Your task to perform on an android device: toggle translation in the chrome app Image 0: 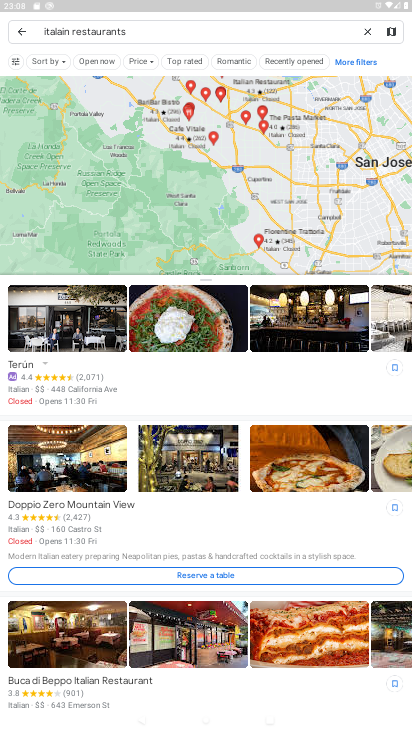
Step 0: press home button
Your task to perform on an android device: toggle translation in the chrome app Image 1: 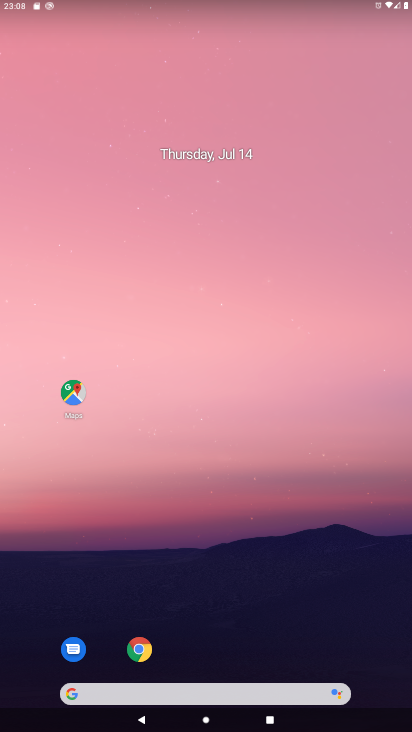
Step 1: click (144, 645)
Your task to perform on an android device: toggle translation in the chrome app Image 2: 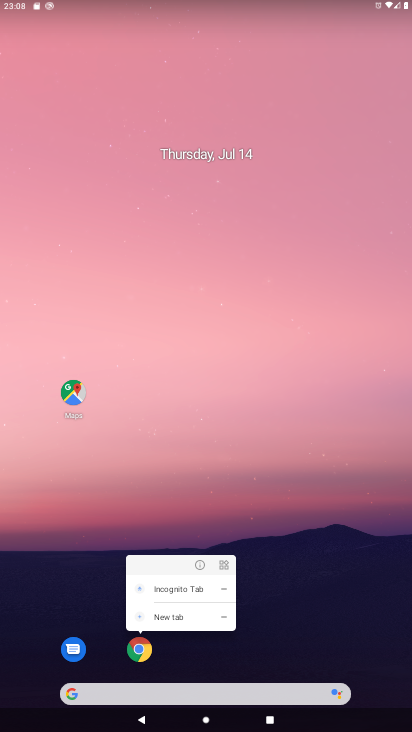
Step 2: click (142, 652)
Your task to perform on an android device: toggle translation in the chrome app Image 3: 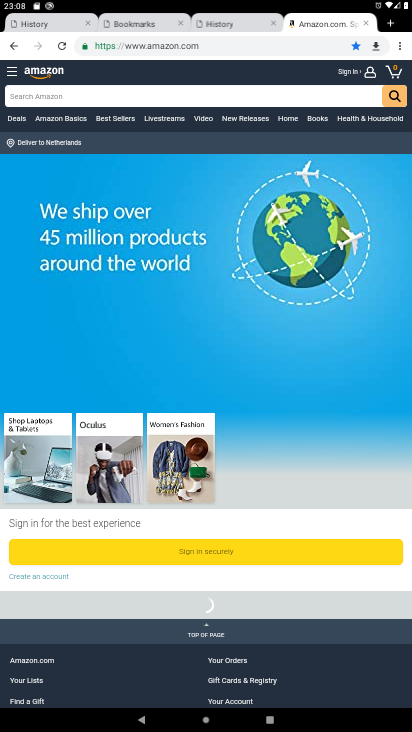
Step 3: click (399, 43)
Your task to perform on an android device: toggle translation in the chrome app Image 4: 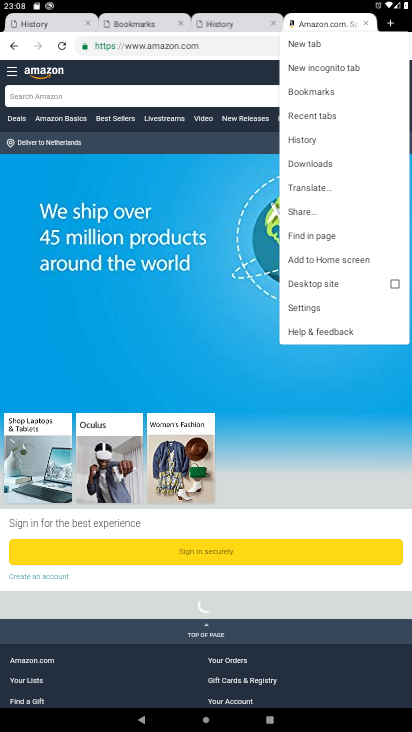
Step 4: click (304, 306)
Your task to perform on an android device: toggle translation in the chrome app Image 5: 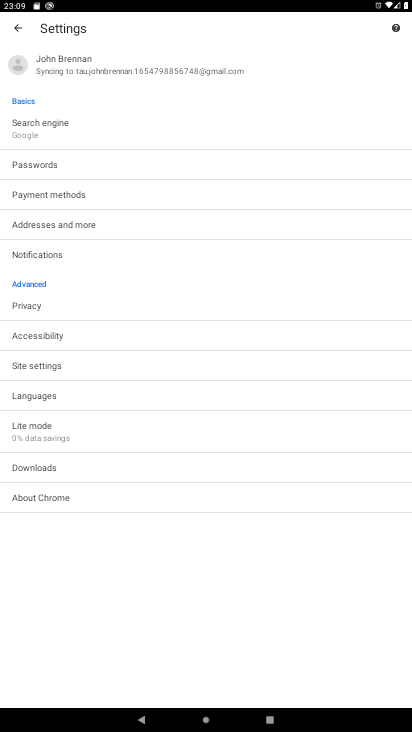
Step 5: click (44, 393)
Your task to perform on an android device: toggle translation in the chrome app Image 6: 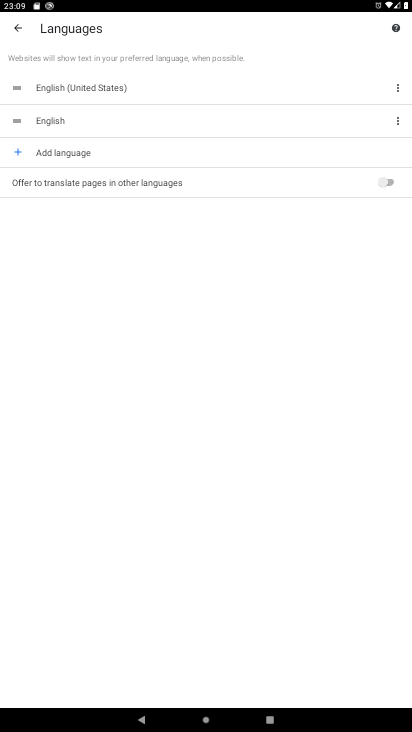
Step 6: click (384, 180)
Your task to perform on an android device: toggle translation in the chrome app Image 7: 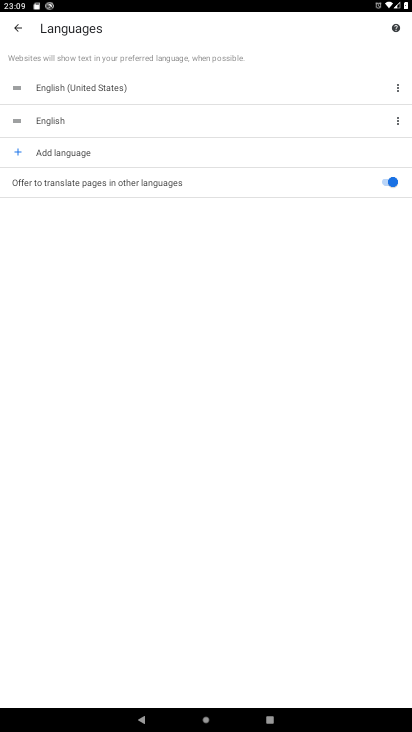
Step 7: task complete